Your task to perform on an android device: set default search engine in the chrome app Image 0: 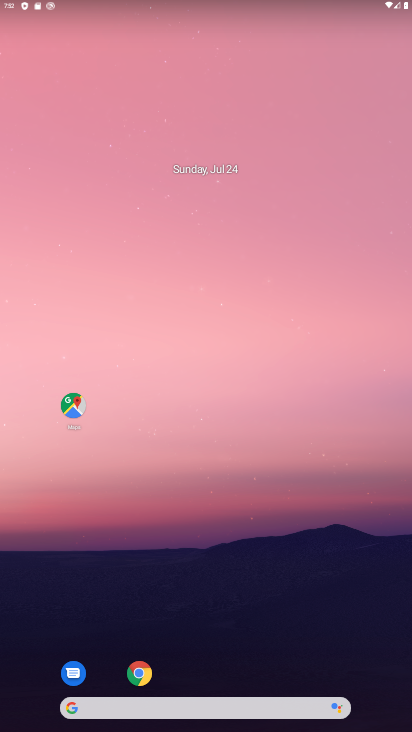
Step 0: click (140, 677)
Your task to perform on an android device: set default search engine in the chrome app Image 1: 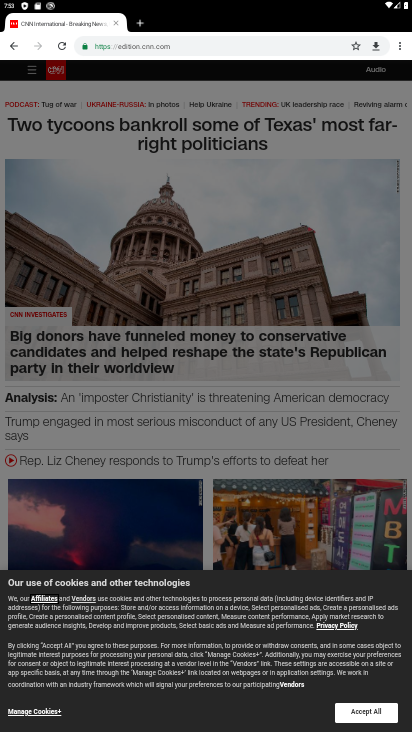
Step 1: click (403, 44)
Your task to perform on an android device: set default search engine in the chrome app Image 2: 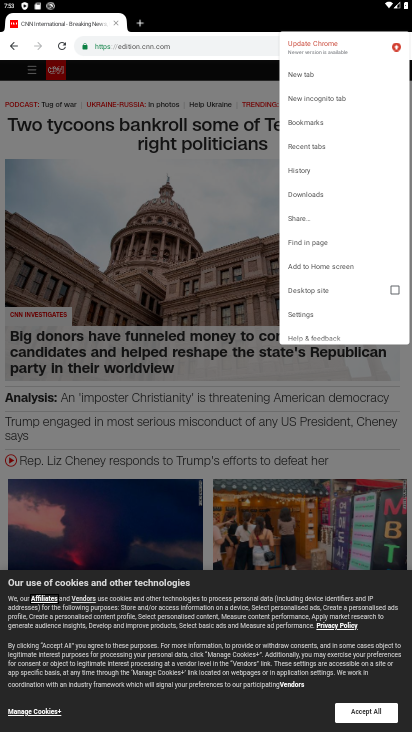
Step 2: click (305, 315)
Your task to perform on an android device: set default search engine in the chrome app Image 3: 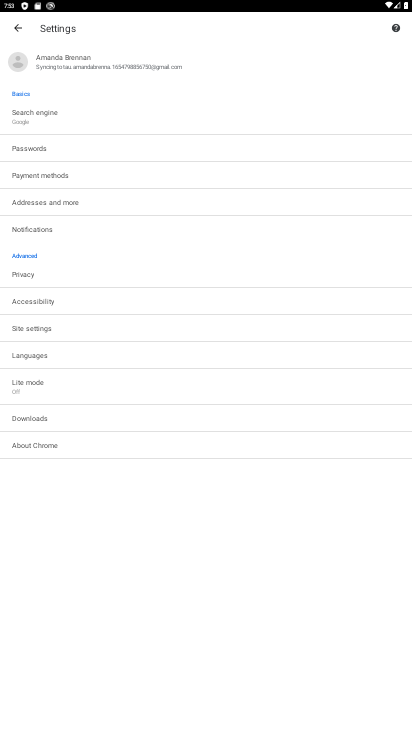
Step 3: click (29, 119)
Your task to perform on an android device: set default search engine in the chrome app Image 4: 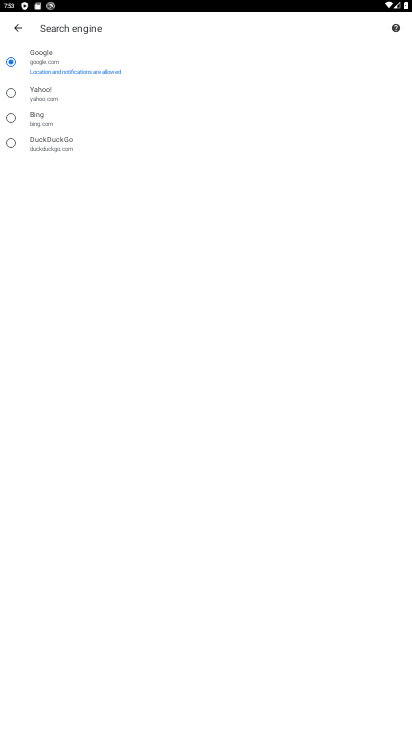
Step 4: click (13, 107)
Your task to perform on an android device: set default search engine in the chrome app Image 5: 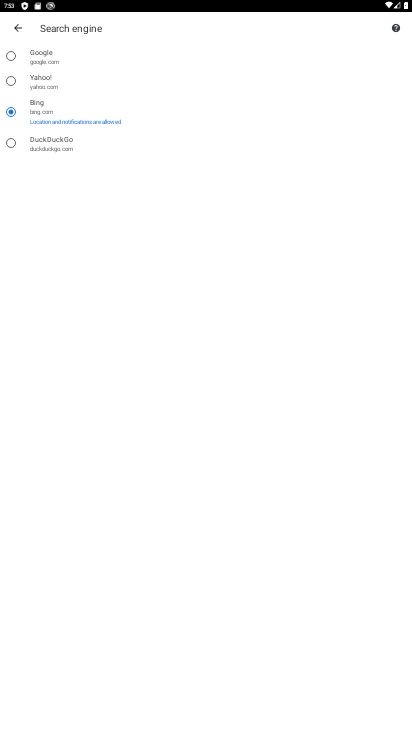
Step 5: task complete